Your task to perform on an android device: add a contact Image 0: 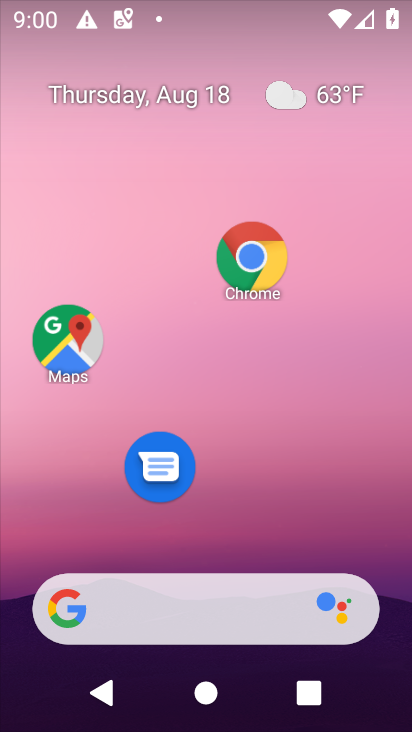
Step 0: drag from (280, 488) to (262, 15)
Your task to perform on an android device: add a contact Image 1: 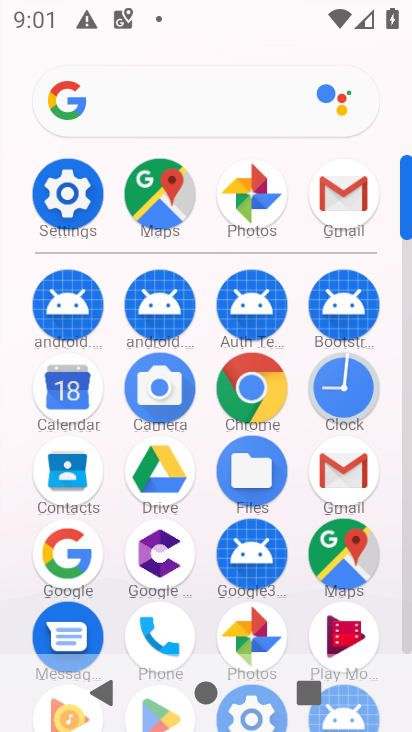
Step 1: task complete